Your task to perform on an android device: Search for seafood restaurants on Google Maps Image 0: 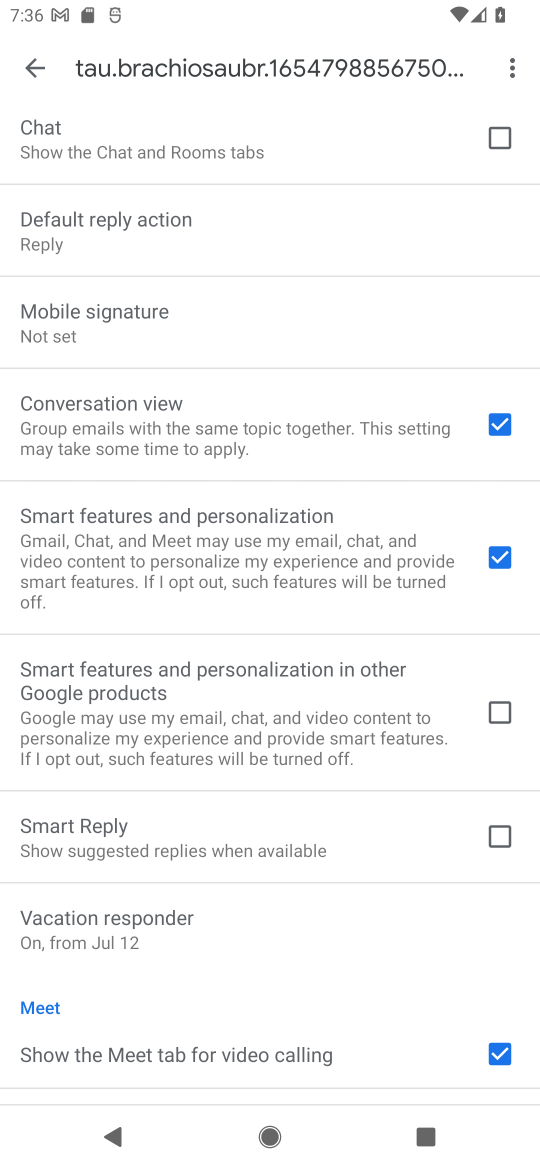
Step 0: press home button
Your task to perform on an android device: Search for seafood restaurants on Google Maps Image 1: 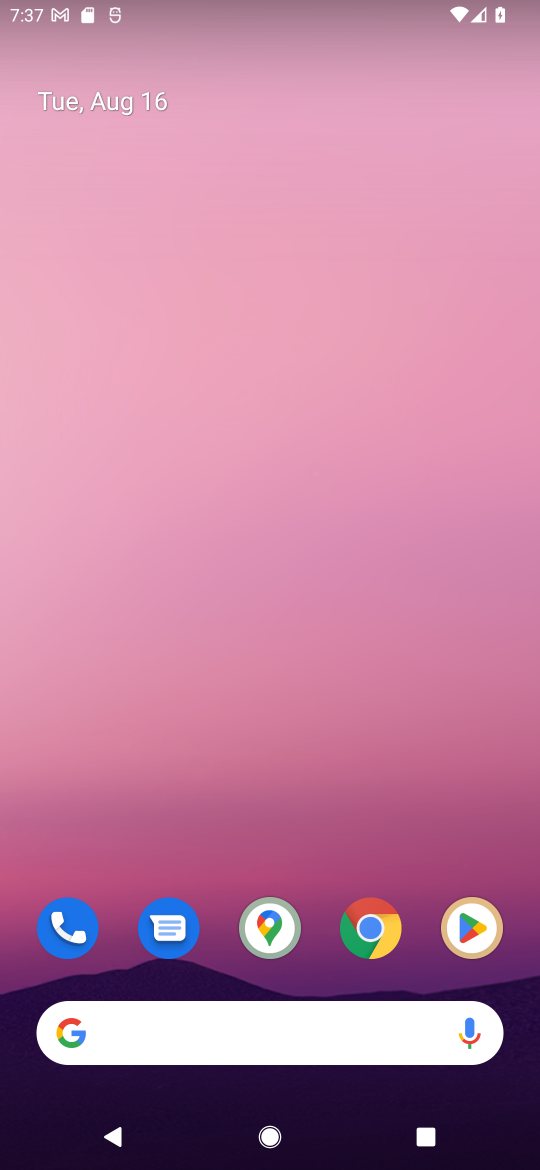
Step 1: click (271, 929)
Your task to perform on an android device: Search for seafood restaurants on Google Maps Image 2: 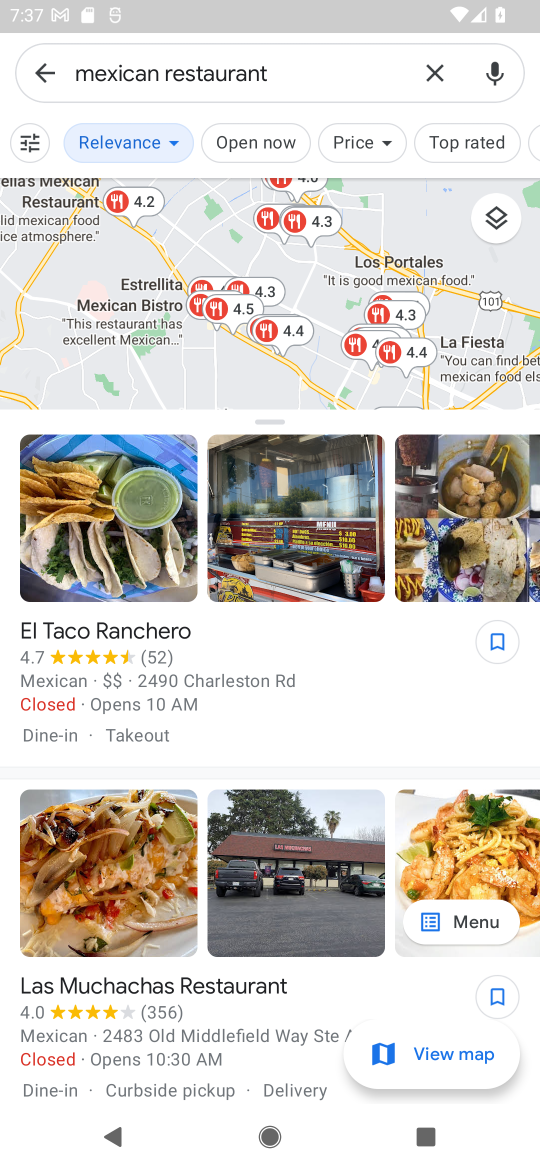
Step 2: click (431, 79)
Your task to perform on an android device: Search for seafood restaurants on Google Maps Image 3: 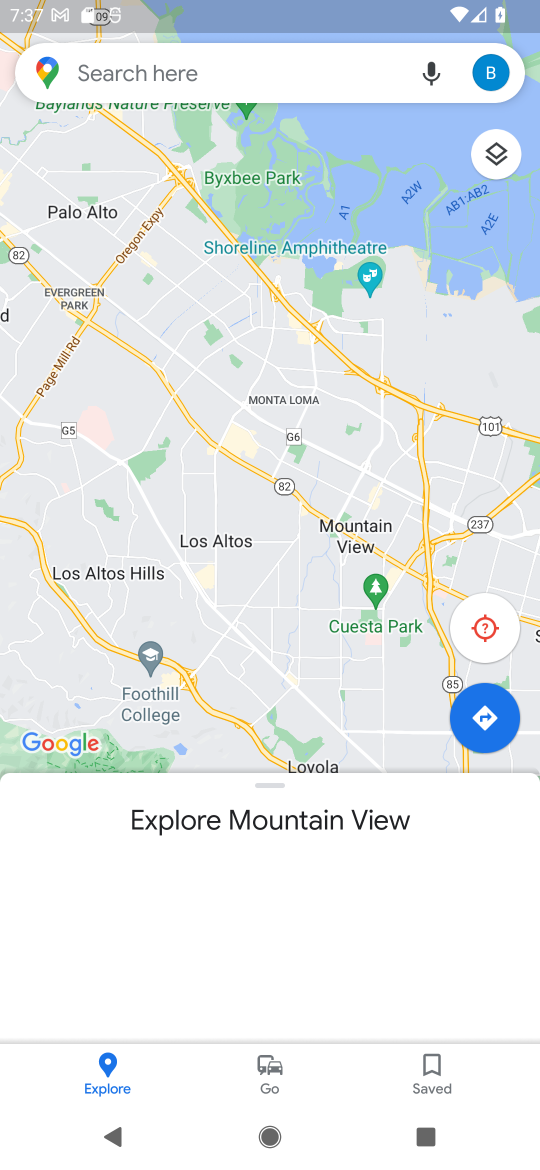
Step 3: click (294, 95)
Your task to perform on an android device: Search for seafood restaurants on Google Maps Image 4: 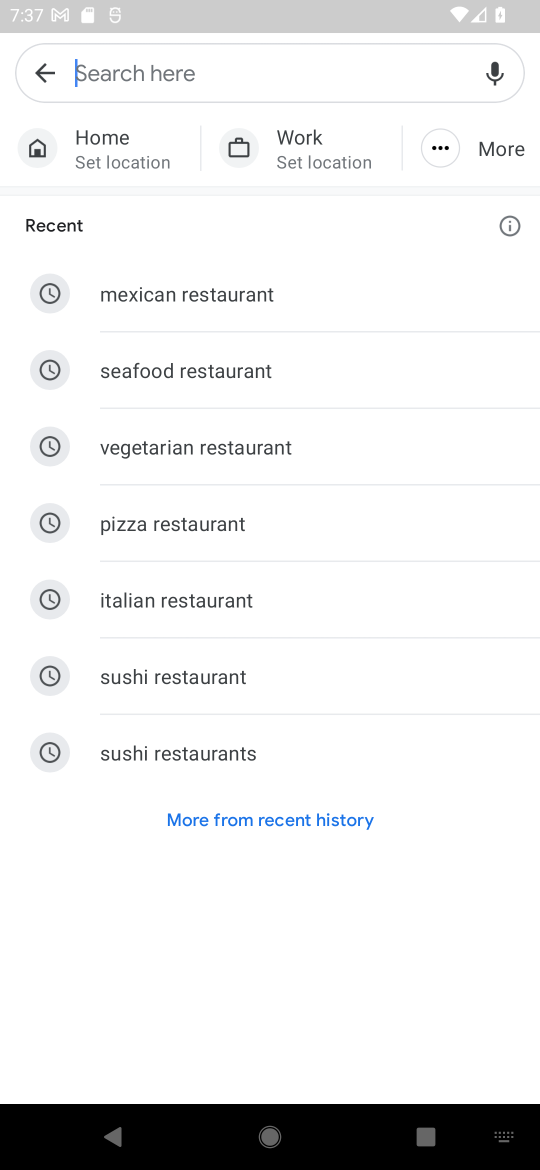
Step 4: click (214, 369)
Your task to perform on an android device: Search for seafood restaurants on Google Maps Image 5: 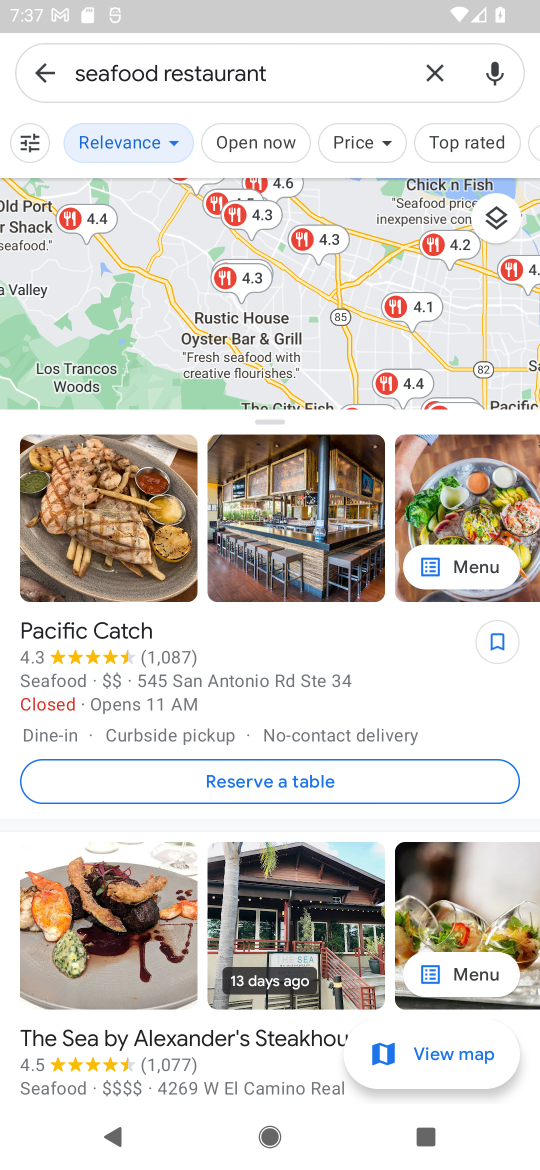
Step 5: task complete